Your task to perform on an android device: Do I have any events today? Image 0: 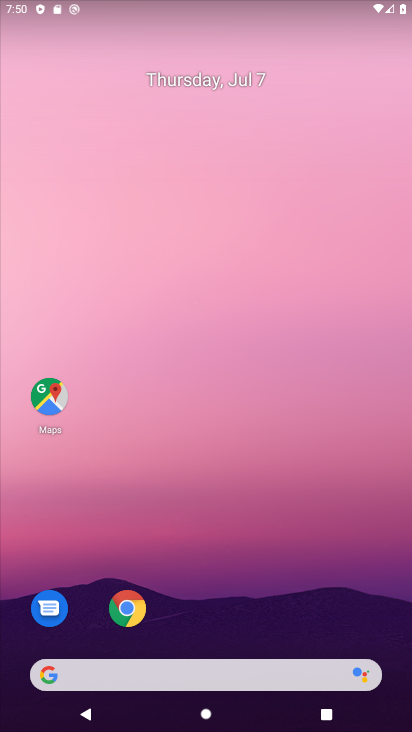
Step 0: drag from (358, 622) to (375, 85)
Your task to perform on an android device: Do I have any events today? Image 1: 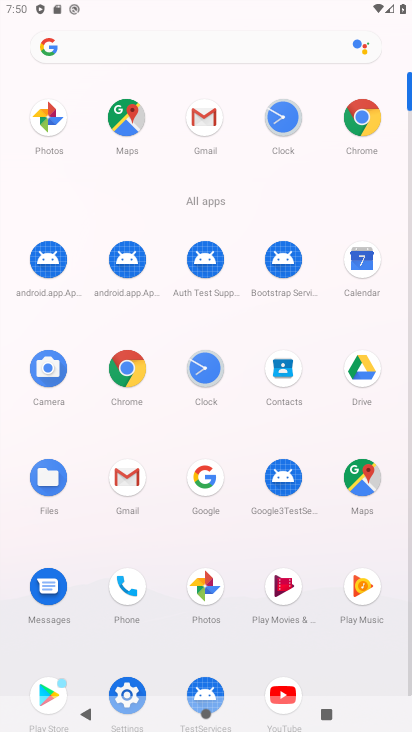
Step 1: click (365, 259)
Your task to perform on an android device: Do I have any events today? Image 2: 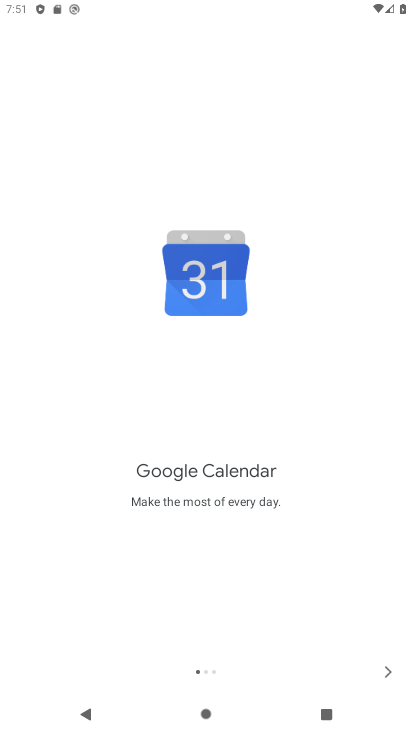
Step 2: click (379, 671)
Your task to perform on an android device: Do I have any events today? Image 3: 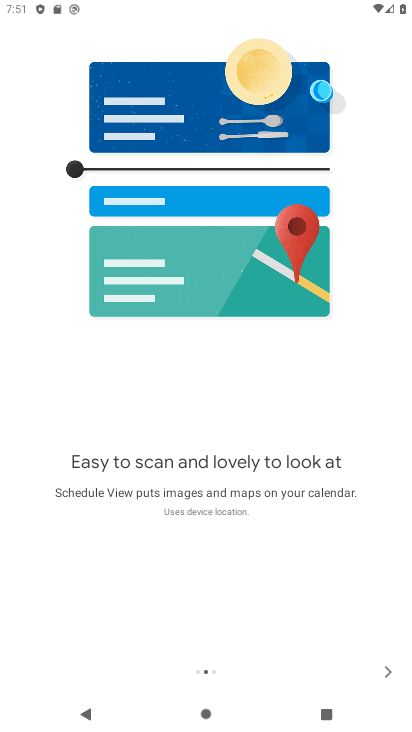
Step 3: click (379, 671)
Your task to perform on an android device: Do I have any events today? Image 4: 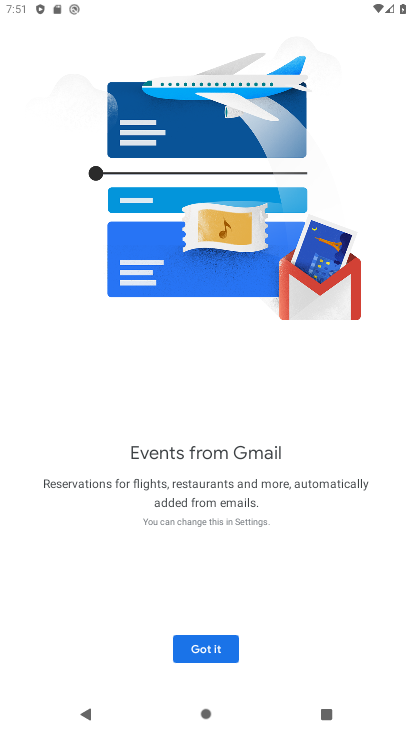
Step 4: click (220, 650)
Your task to perform on an android device: Do I have any events today? Image 5: 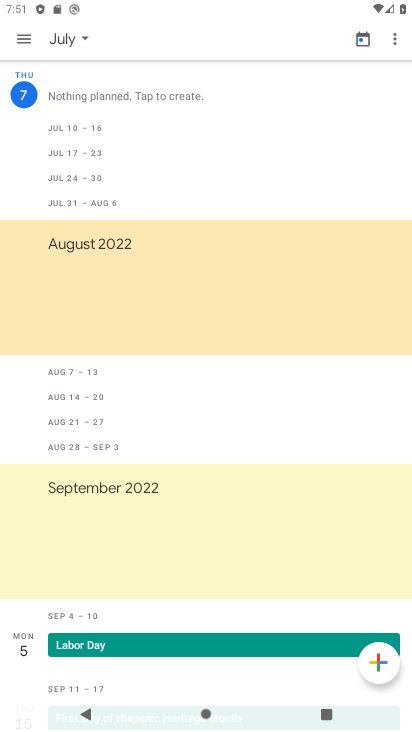
Step 5: click (89, 37)
Your task to perform on an android device: Do I have any events today? Image 6: 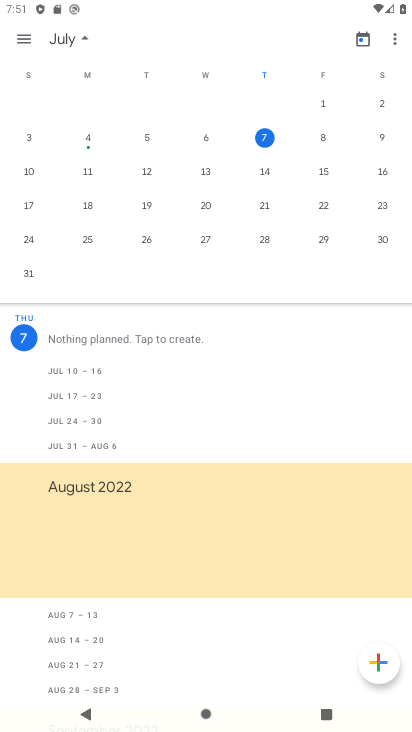
Step 6: click (324, 136)
Your task to perform on an android device: Do I have any events today? Image 7: 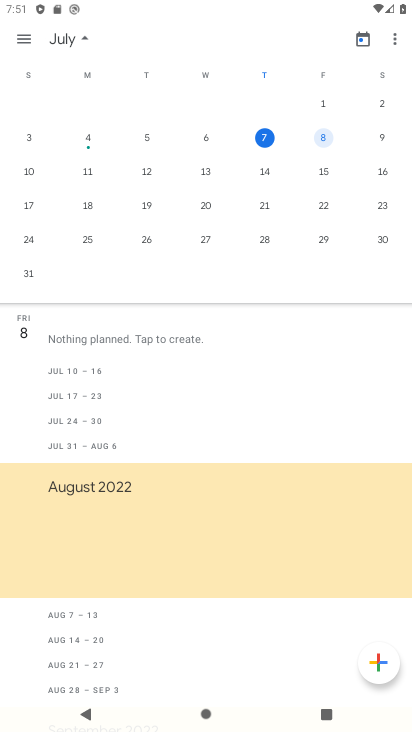
Step 7: task complete